Your task to perform on an android device: change the clock display to digital Image 0: 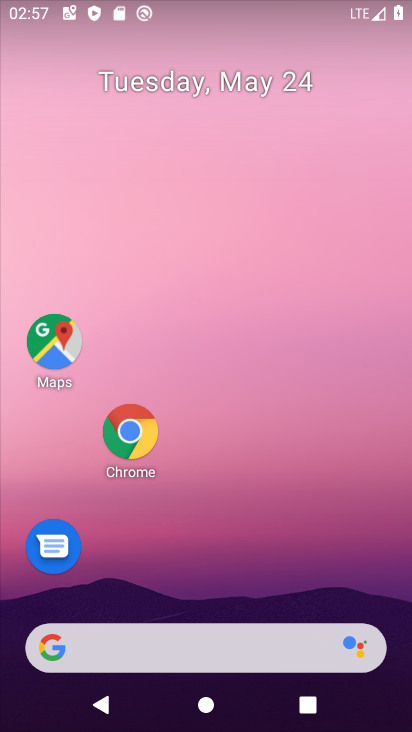
Step 0: drag from (233, 546) to (263, 353)
Your task to perform on an android device: change the clock display to digital Image 1: 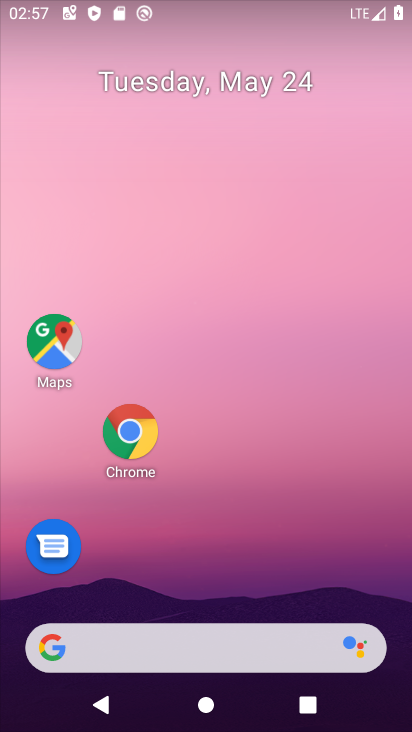
Step 1: drag from (225, 585) to (273, 400)
Your task to perform on an android device: change the clock display to digital Image 2: 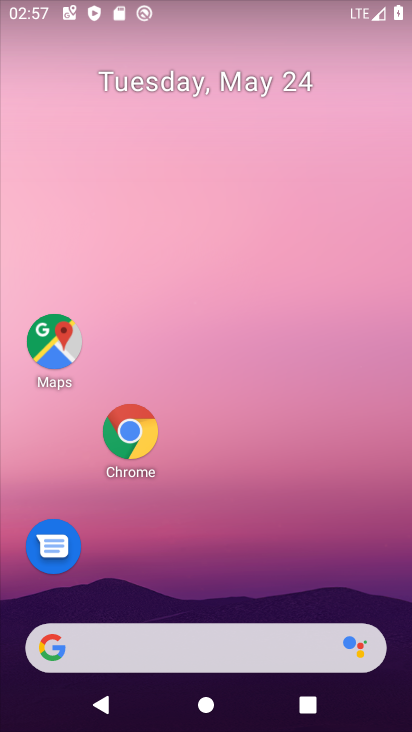
Step 2: drag from (221, 553) to (311, 14)
Your task to perform on an android device: change the clock display to digital Image 3: 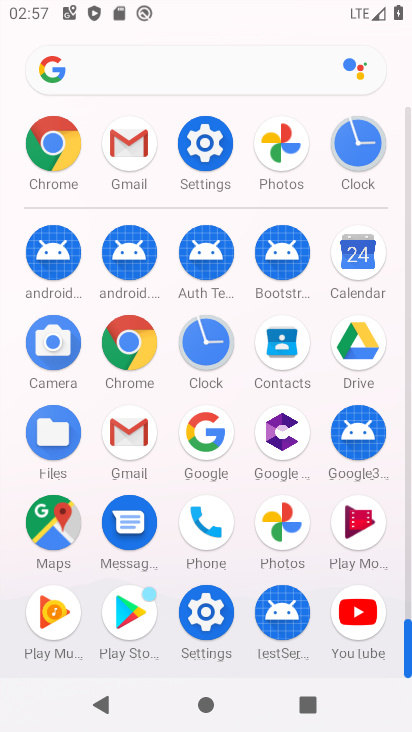
Step 3: click (188, 337)
Your task to perform on an android device: change the clock display to digital Image 4: 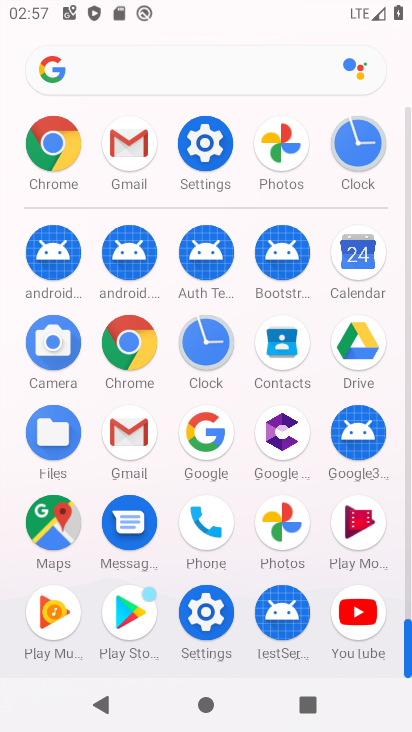
Step 4: click (188, 337)
Your task to perform on an android device: change the clock display to digital Image 5: 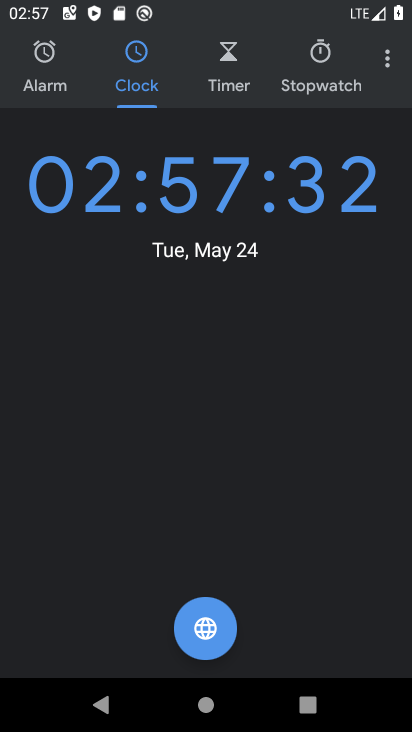
Step 5: click (385, 67)
Your task to perform on an android device: change the clock display to digital Image 6: 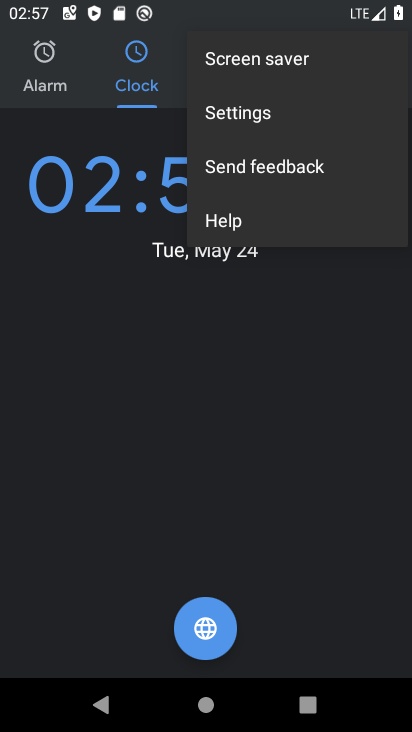
Step 6: click (271, 110)
Your task to perform on an android device: change the clock display to digital Image 7: 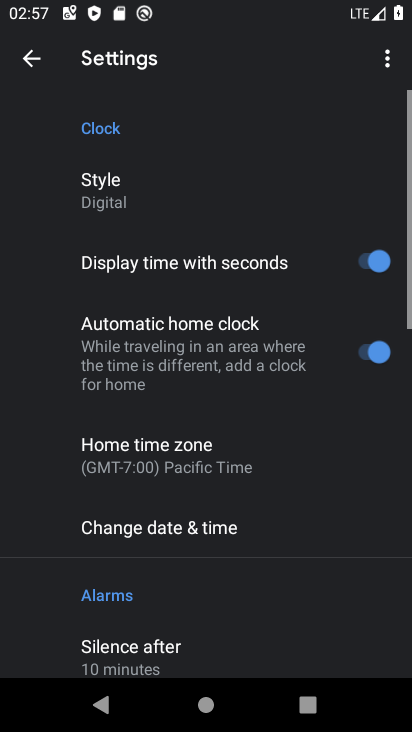
Step 7: click (136, 197)
Your task to perform on an android device: change the clock display to digital Image 8: 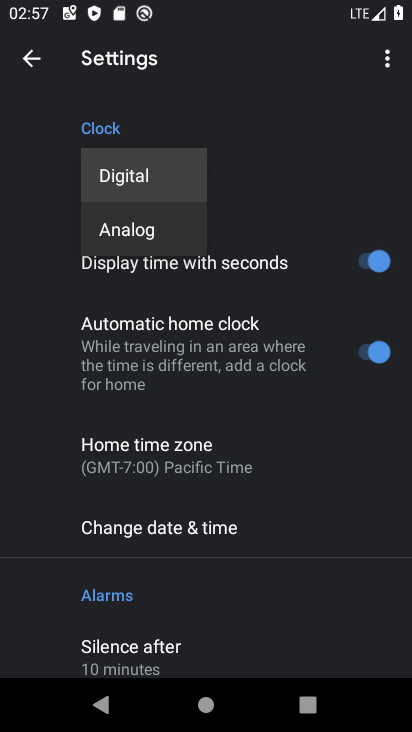
Step 8: click (151, 182)
Your task to perform on an android device: change the clock display to digital Image 9: 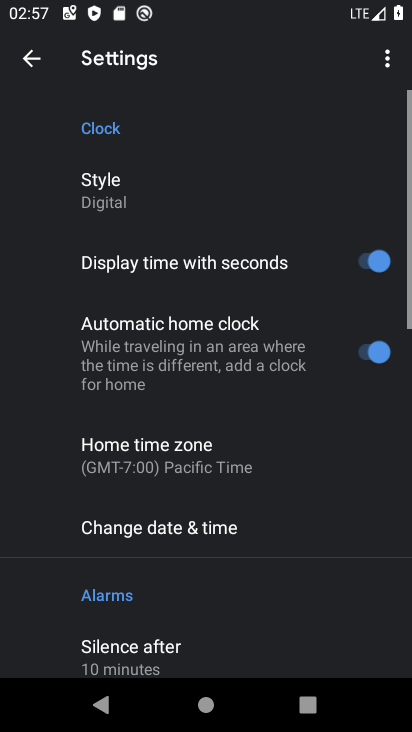
Step 9: task complete